Your task to perform on an android device: change timer sound Image 0: 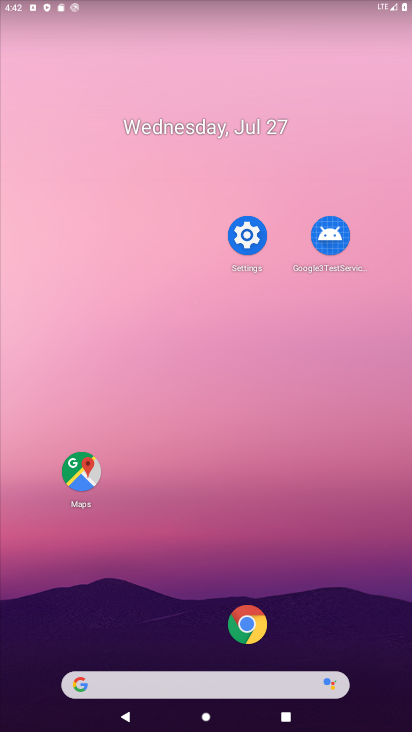
Step 0: drag from (180, 611) to (119, 25)
Your task to perform on an android device: change timer sound Image 1: 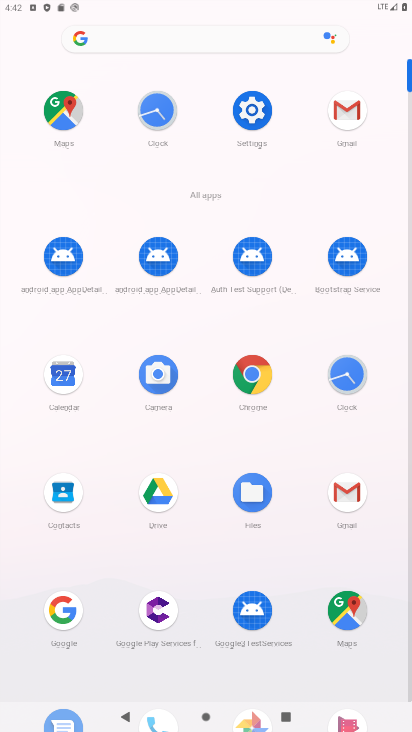
Step 1: click (159, 117)
Your task to perform on an android device: change timer sound Image 2: 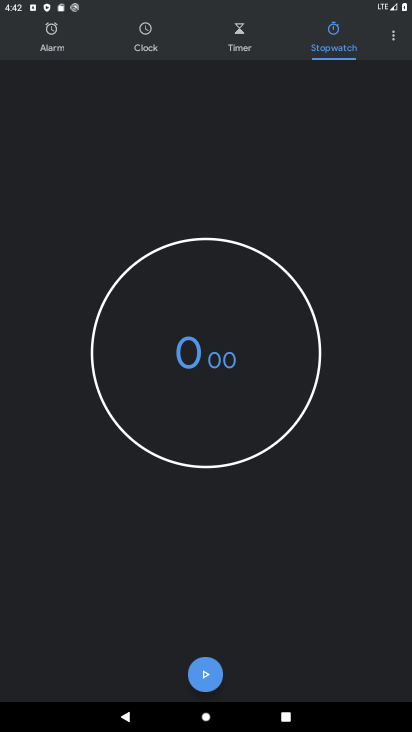
Step 2: click (401, 45)
Your task to perform on an android device: change timer sound Image 3: 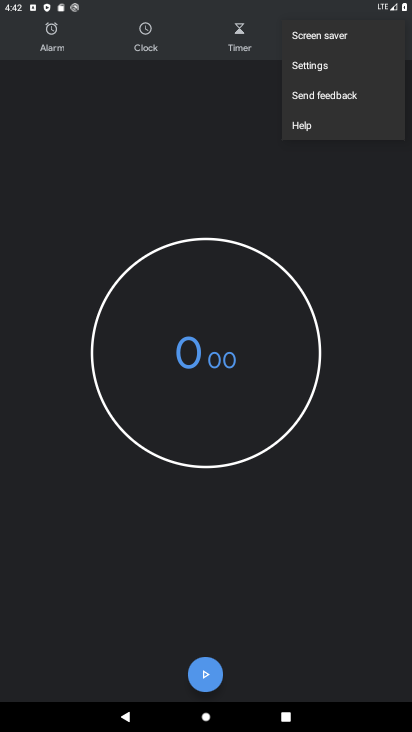
Step 3: click (298, 63)
Your task to perform on an android device: change timer sound Image 4: 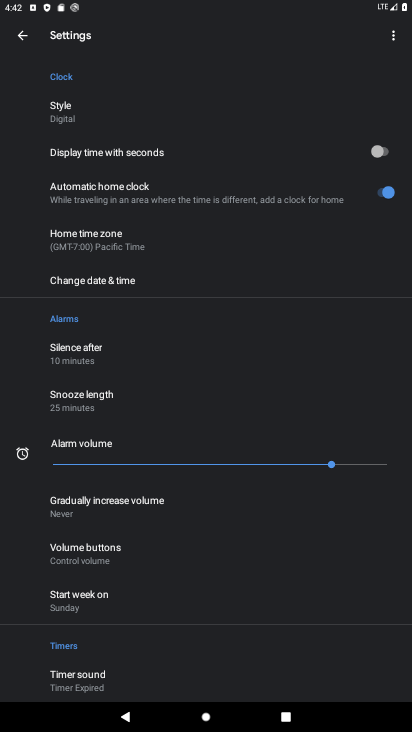
Step 4: click (106, 685)
Your task to perform on an android device: change timer sound Image 5: 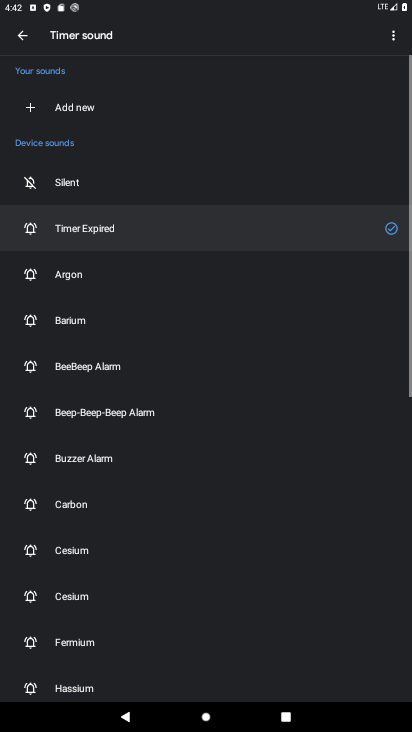
Step 5: click (284, 436)
Your task to perform on an android device: change timer sound Image 6: 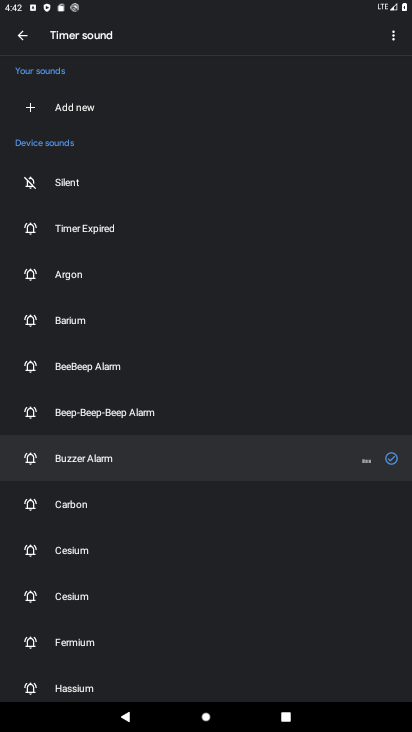
Step 6: task complete